Your task to perform on an android device: Go to network settings Image 0: 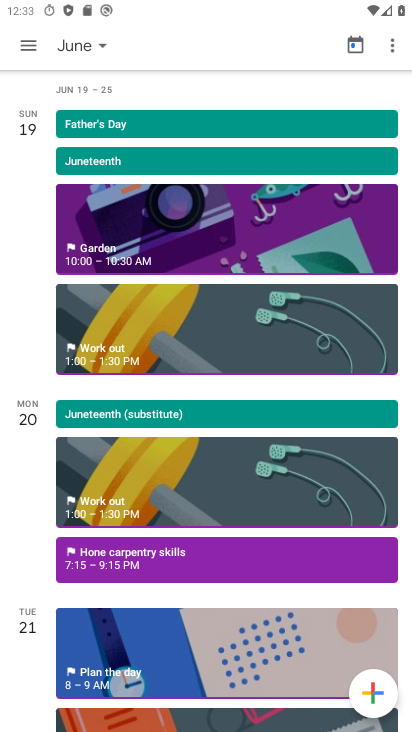
Step 0: press back button
Your task to perform on an android device: Go to network settings Image 1: 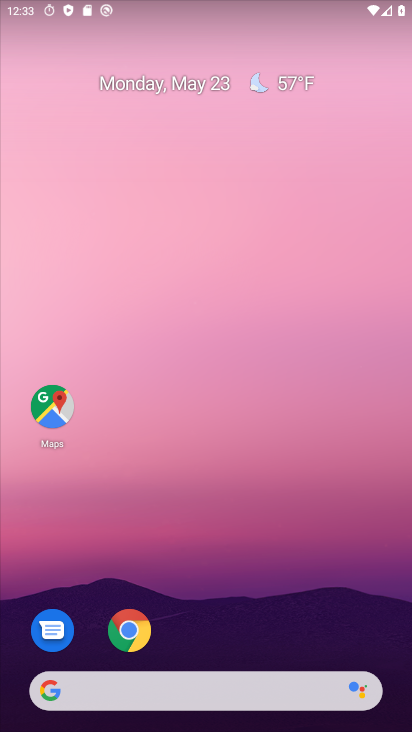
Step 1: drag from (198, 567) to (182, 50)
Your task to perform on an android device: Go to network settings Image 2: 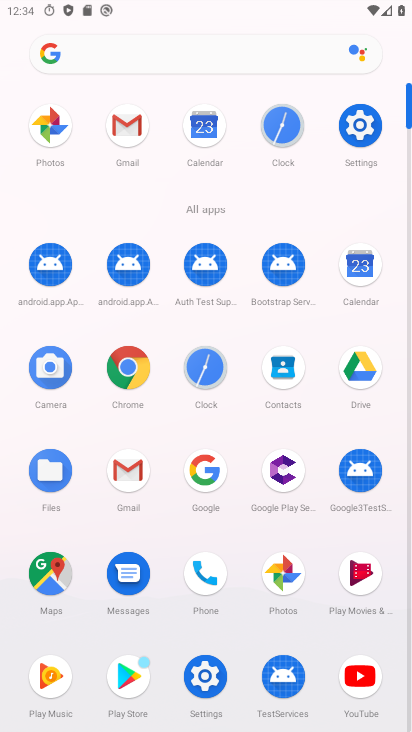
Step 2: click (355, 120)
Your task to perform on an android device: Go to network settings Image 3: 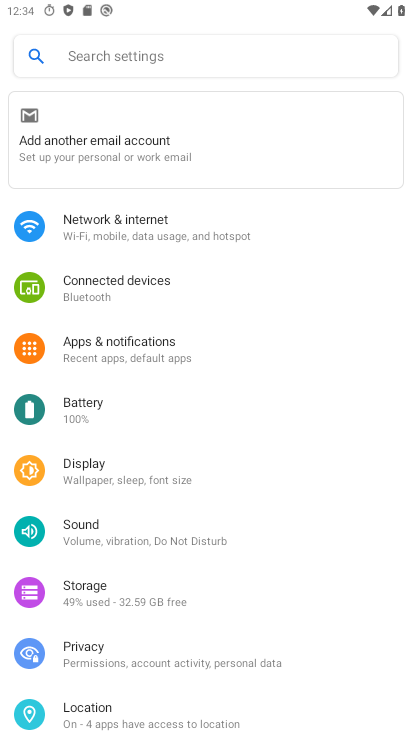
Step 3: click (150, 212)
Your task to perform on an android device: Go to network settings Image 4: 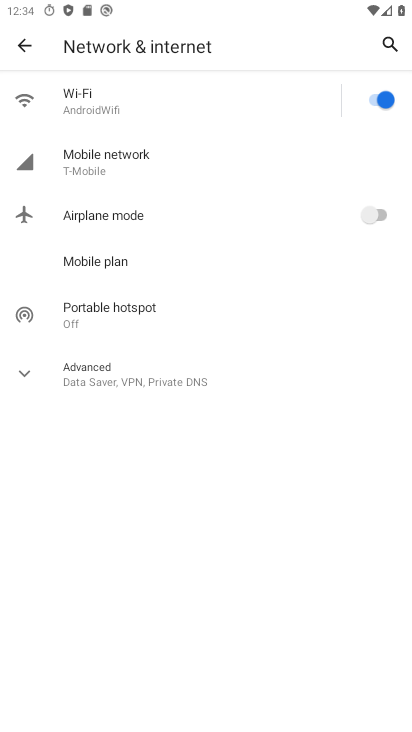
Step 4: click (69, 372)
Your task to perform on an android device: Go to network settings Image 5: 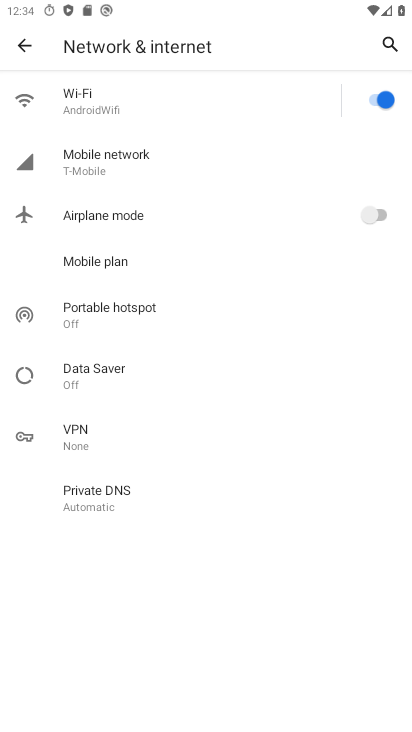
Step 5: task complete